Your task to perform on an android device: turn off location history Image 0: 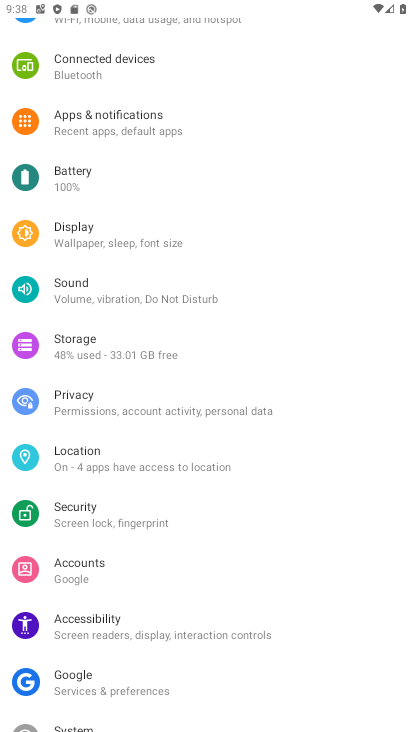
Step 0: click (114, 450)
Your task to perform on an android device: turn off location history Image 1: 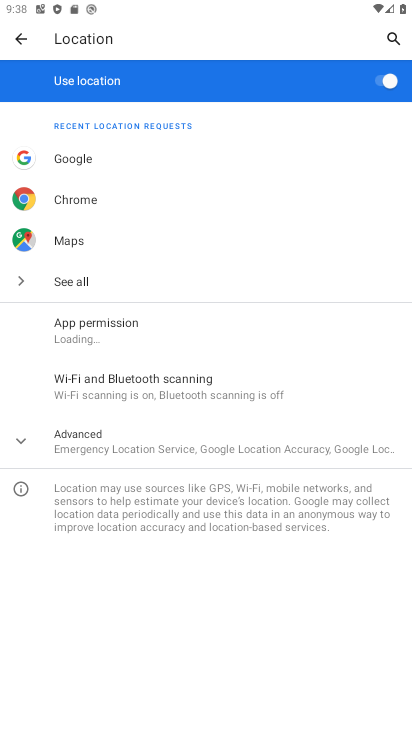
Step 1: click (51, 440)
Your task to perform on an android device: turn off location history Image 2: 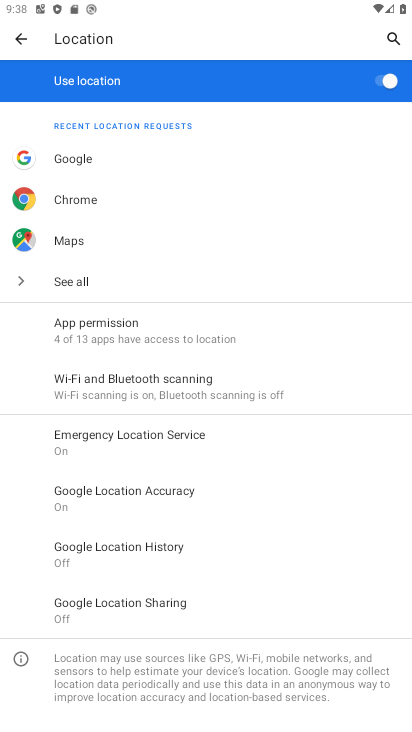
Step 2: click (170, 542)
Your task to perform on an android device: turn off location history Image 3: 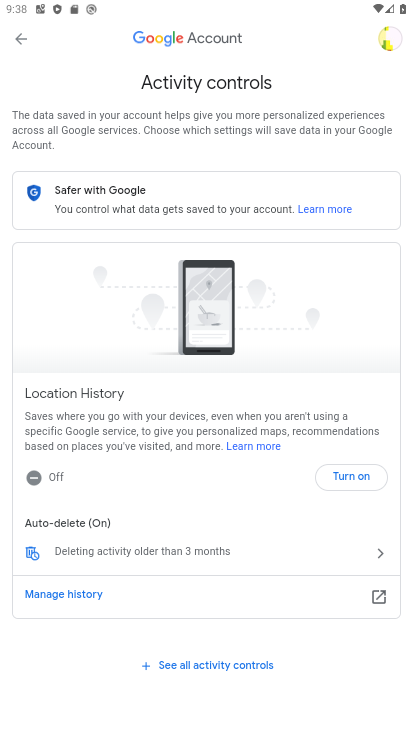
Step 3: task complete